Your task to perform on an android device: change text size in settings app Image 0: 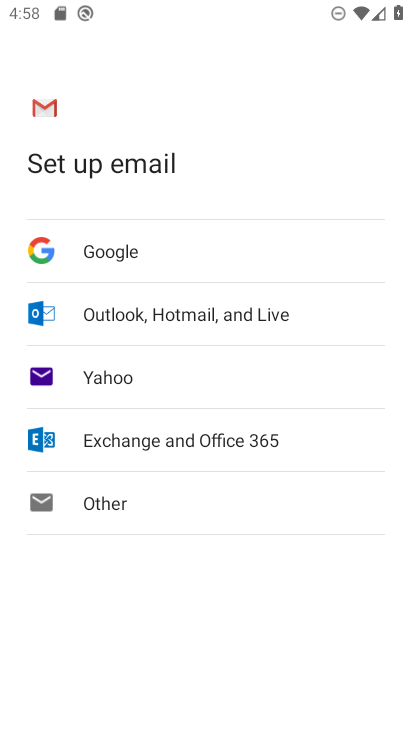
Step 0: press home button
Your task to perform on an android device: change text size in settings app Image 1: 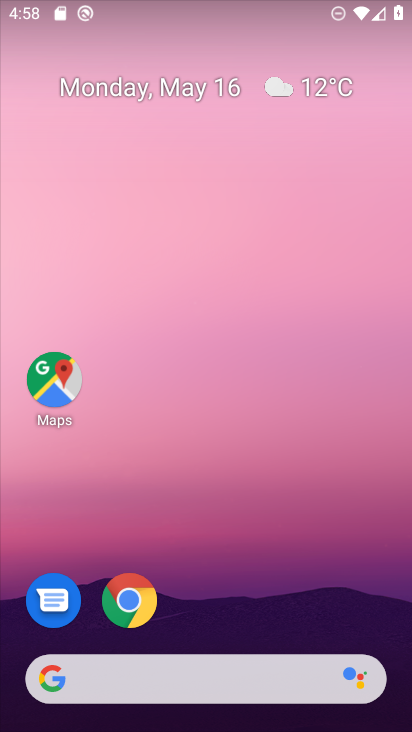
Step 1: drag from (272, 581) to (225, 165)
Your task to perform on an android device: change text size in settings app Image 2: 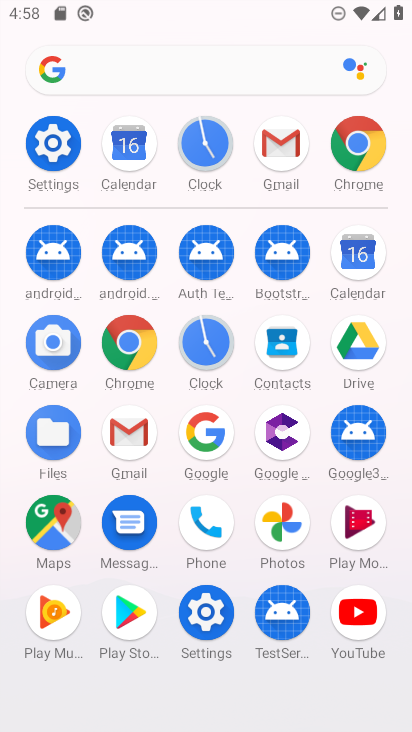
Step 2: click (53, 146)
Your task to perform on an android device: change text size in settings app Image 3: 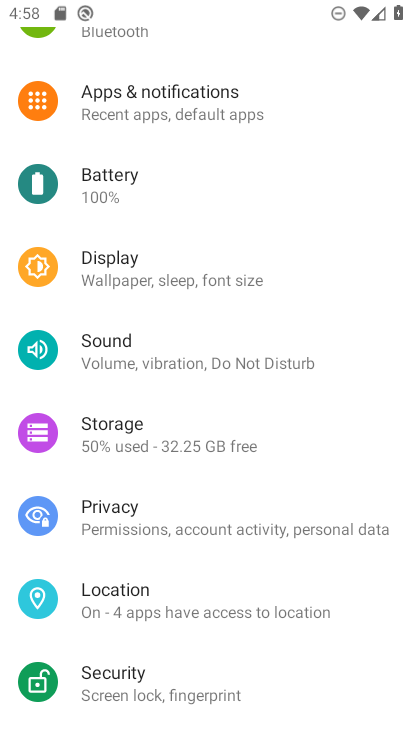
Step 3: click (175, 271)
Your task to perform on an android device: change text size in settings app Image 4: 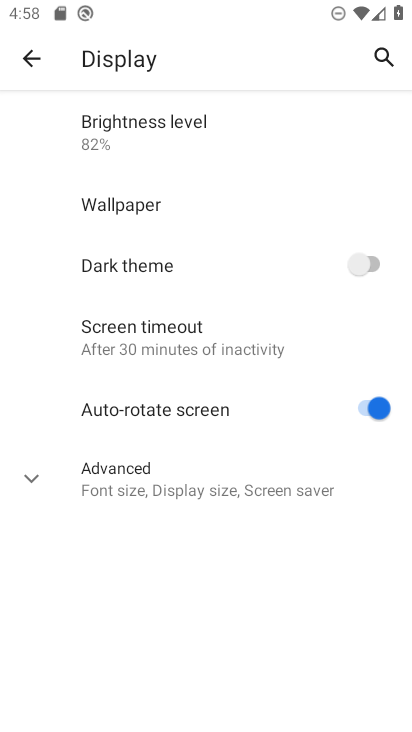
Step 4: click (130, 483)
Your task to perform on an android device: change text size in settings app Image 5: 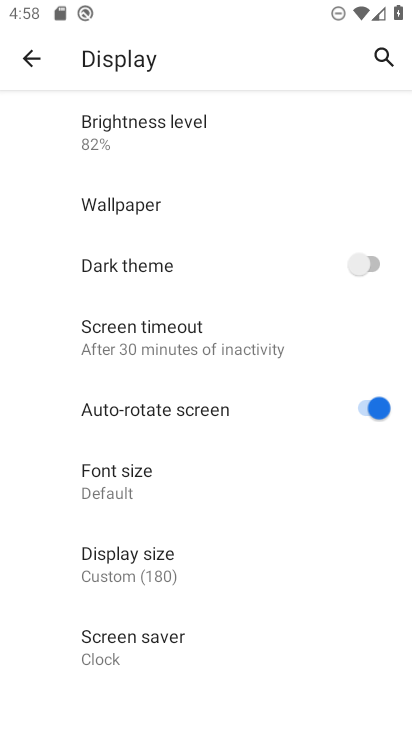
Step 5: click (121, 476)
Your task to perform on an android device: change text size in settings app Image 6: 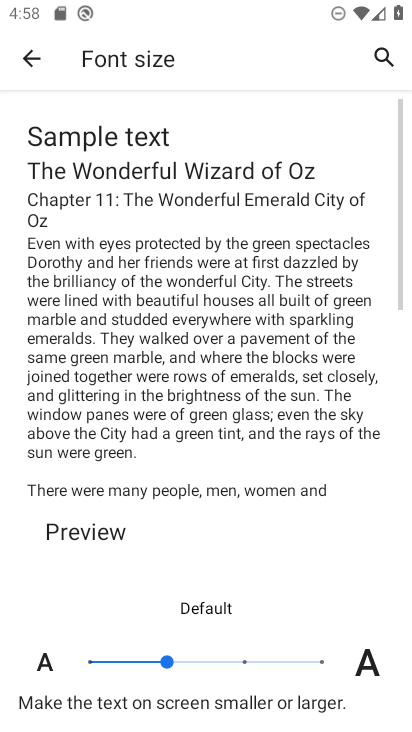
Step 6: click (110, 652)
Your task to perform on an android device: change text size in settings app Image 7: 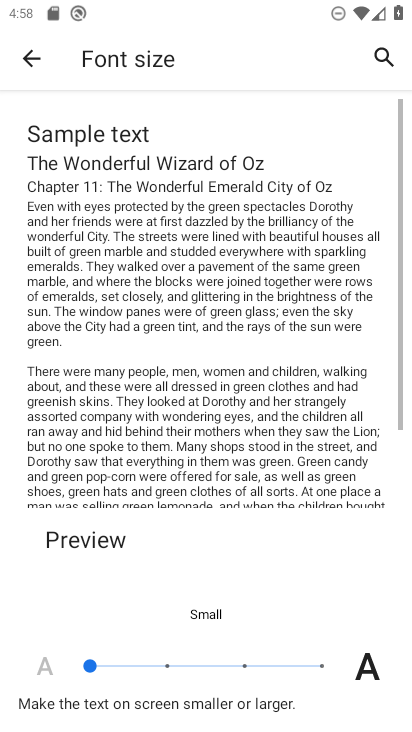
Step 7: task complete